Your task to perform on an android device: open chrome and create a bookmark for the current page Image 0: 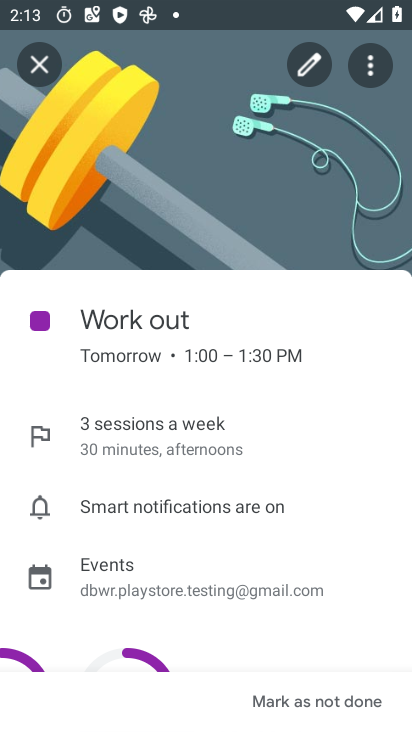
Step 0: press home button
Your task to perform on an android device: open chrome and create a bookmark for the current page Image 1: 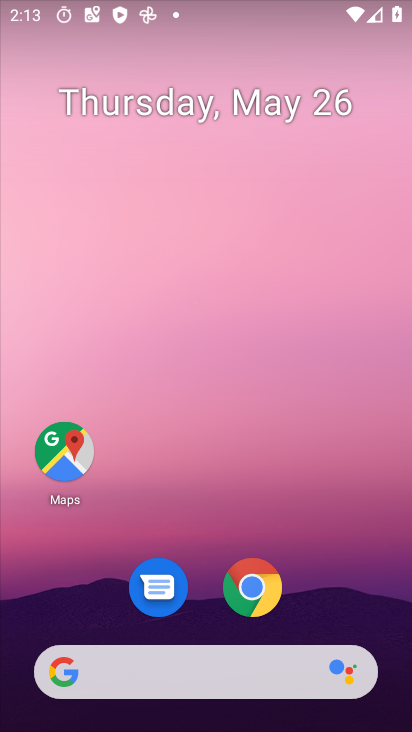
Step 1: drag from (372, 620) to (374, 135)
Your task to perform on an android device: open chrome and create a bookmark for the current page Image 2: 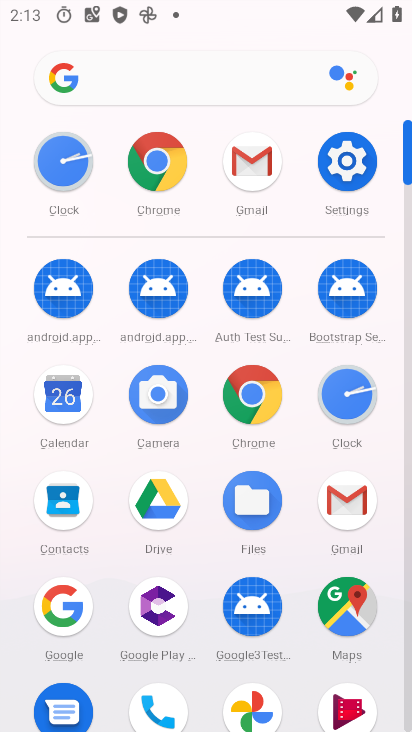
Step 2: click (250, 420)
Your task to perform on an android device: open chrome and create a bookmark for the current page Image 3: 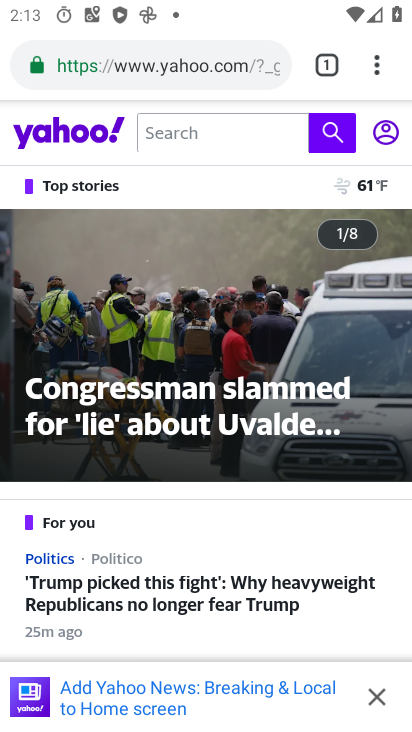
Step 3: click (373, 77)
Your task to perform on an android device: open chrome and create a bookmark for the current page Image 4: 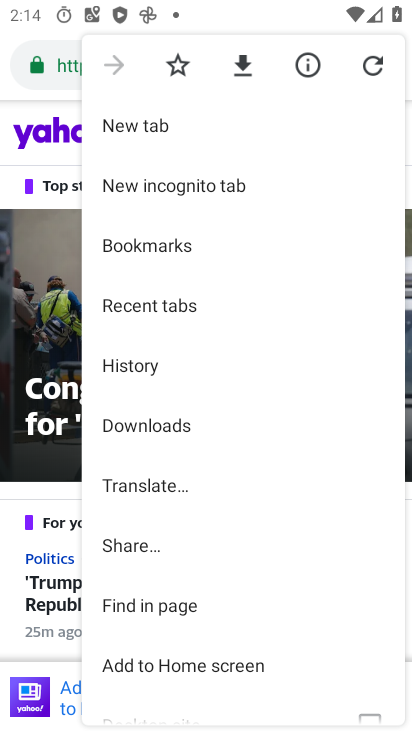
Step 4: click (178, 74)
Your task to perform on an android device: open chrome and create a bookmark for the current page Image 5: 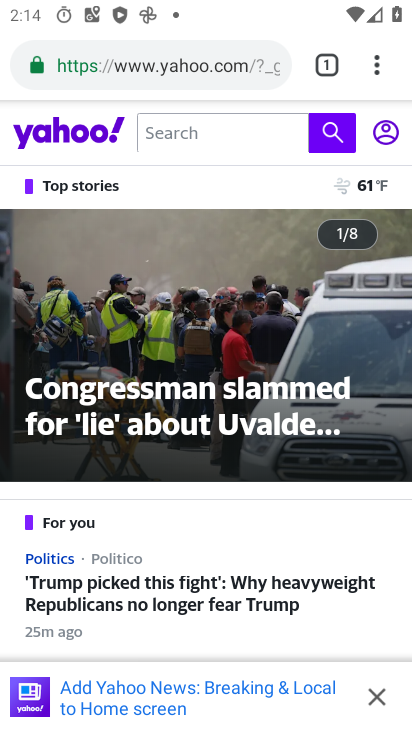
Step 5: task complete